Your task to perform on an android device: Go to location settings Image 0: 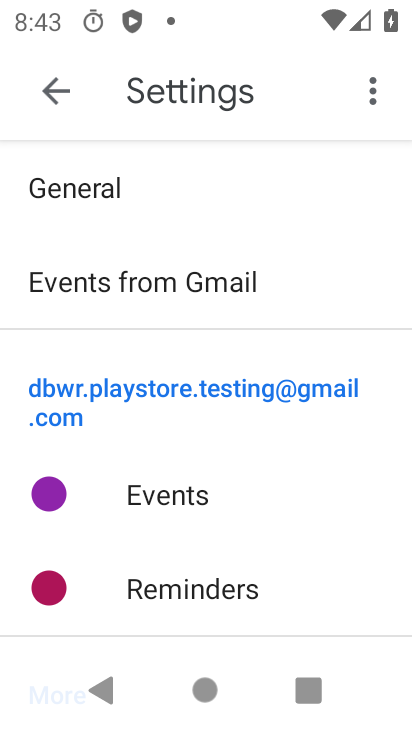
Step 0: click (49, 89)
Your task to perform on an android device: Go to location settings Image 1: 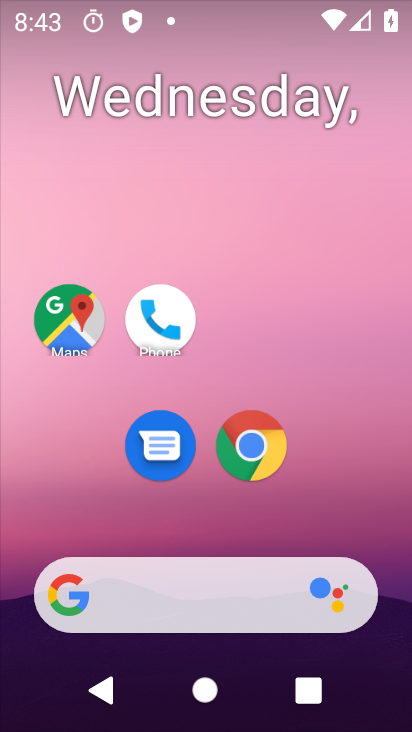
Step 1: drag from (331, 393) to (407, 254)
Your task to perform on an android device: Go to location settings Image 2: 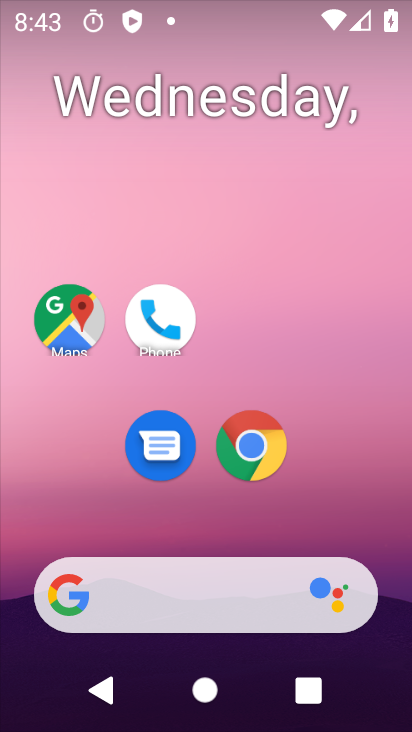
Step 2: drag from (323, 512) to (320, 70)
Your task to perform on an android device: Go to location settings Image 3: 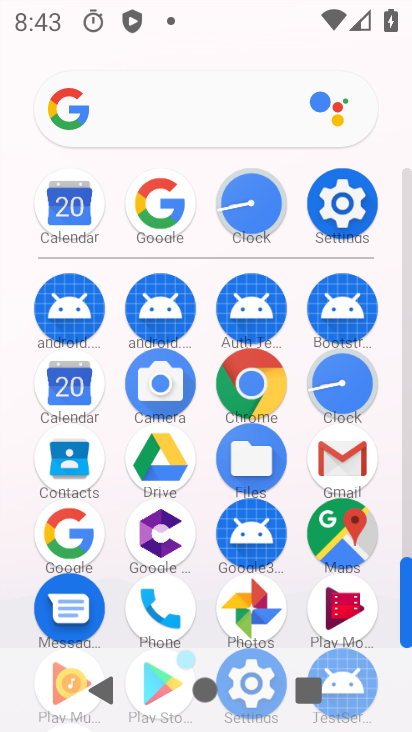
Step 3: click (350, 214)
Your task to perform on an android device: Go to location settings Image 4: 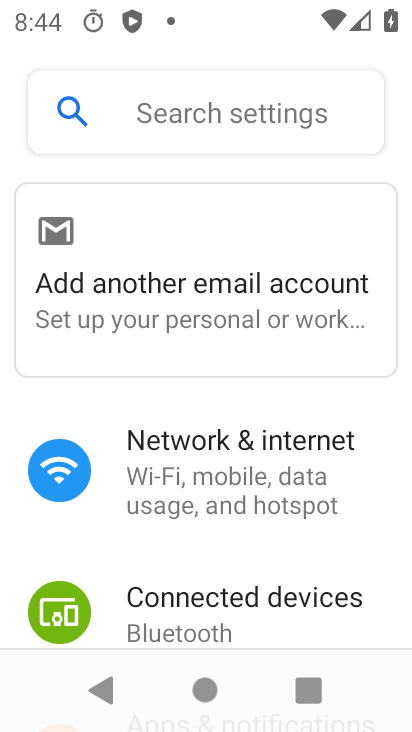
Step 4: drag from (238, 472) to (240, 3)
Your task to perform on an android device: Go to location settings Image 5: 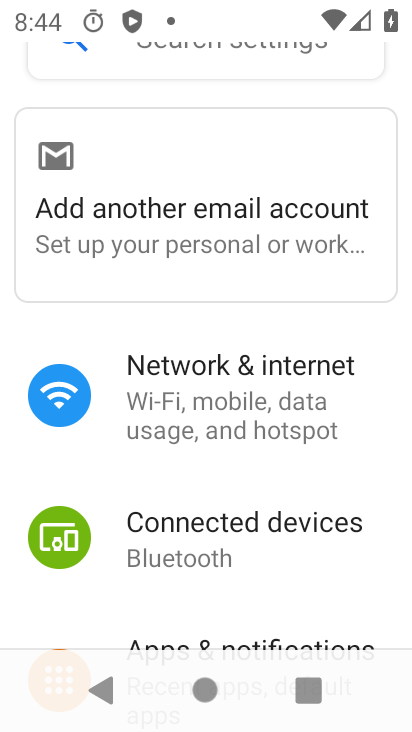
Step 5: drag from (237, 531) to (298, 15)
Your task to perform on an android device: Go to location settings Image 6: 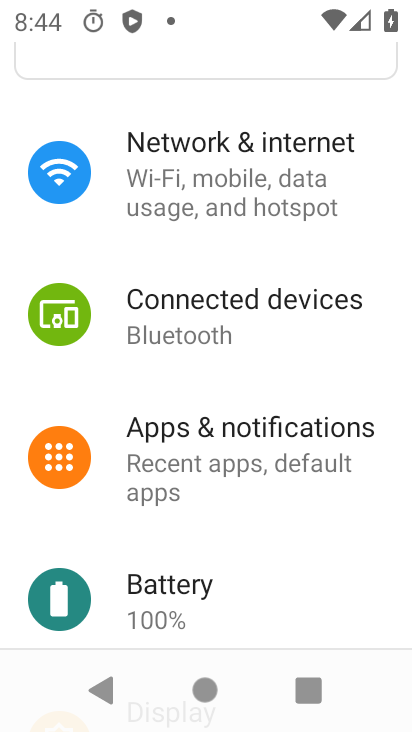
Step 6: drag from (209, 576) to (318, 88)
Your task to perform on an android device: Go to location settings Image 7: 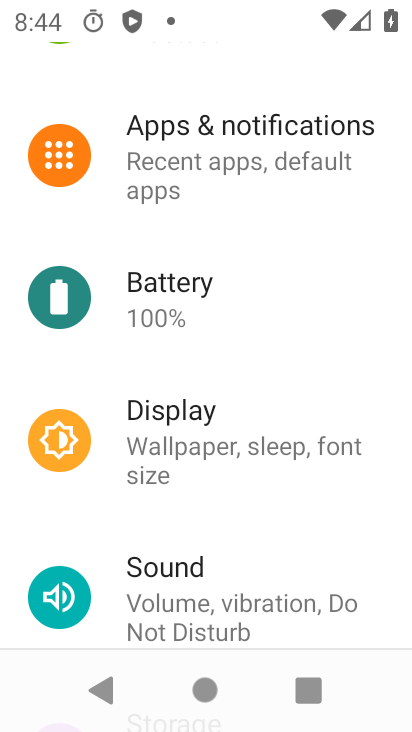
Step 7: drag from (223, 539) to (293, 59)
Your task to perform on an android device: Go to location settings Image 8: 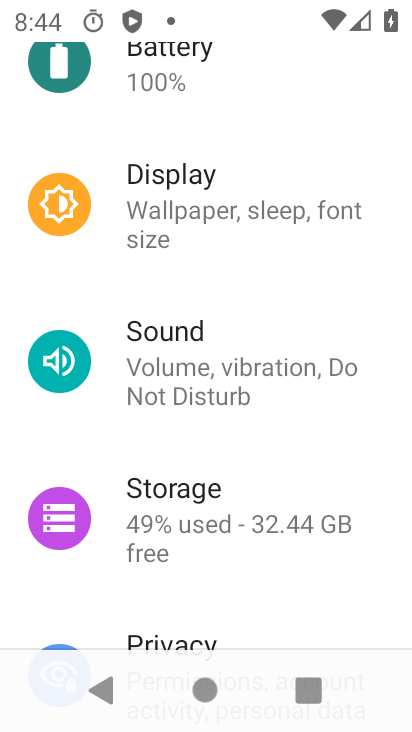
Step 8: drag from (195, 574) to (332, 46)
Your task to perform on an android device: Go to location settings Image 9: 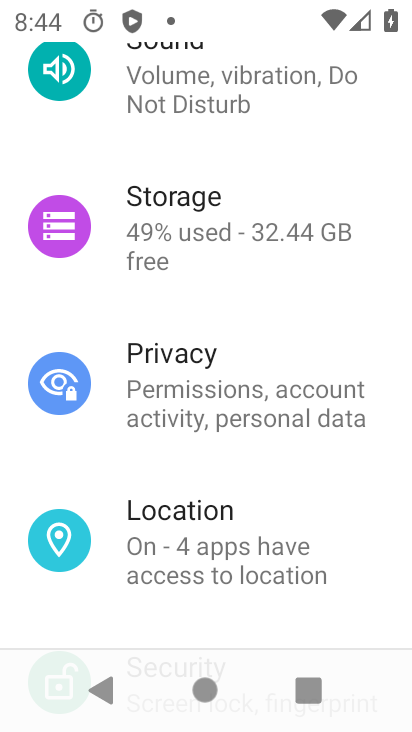
Step 9: click (166, 564)
Your task to perform on an android device: Go to location settings Image 10: 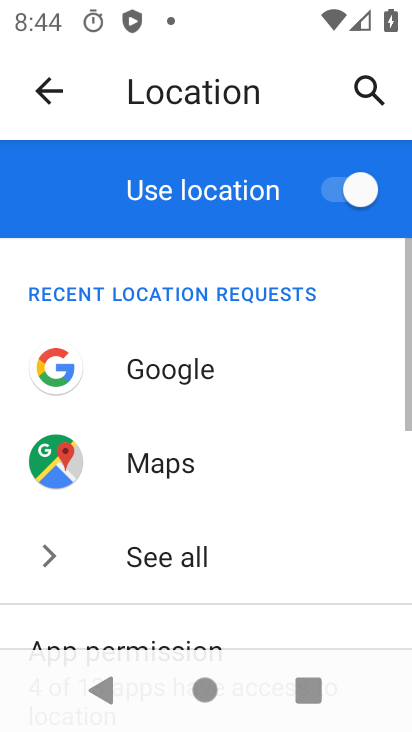
Step 10: task complete